Your task to perform on an android device: allow cookies in the chrome app Image 0: 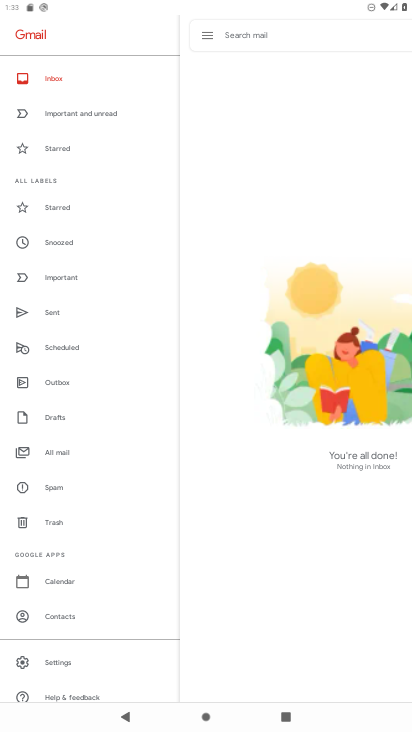
Step 0: press home button
Your task to perform on an android device: allow cookies in the chrome app Image 1: 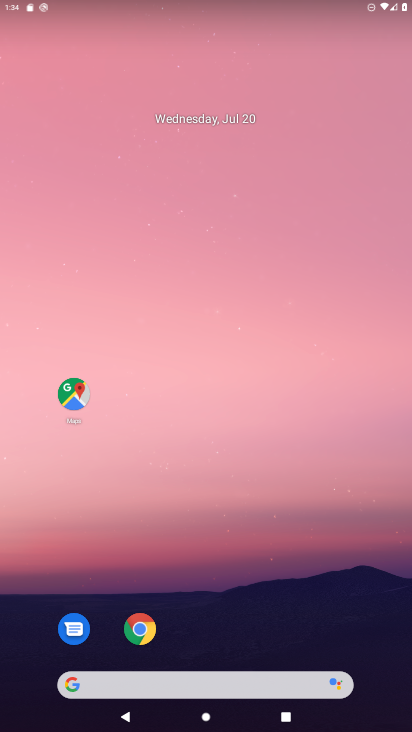
Step 1: click (146, 633)
Your task to perform on an android device: allow cookies in the chrome app Image 2: 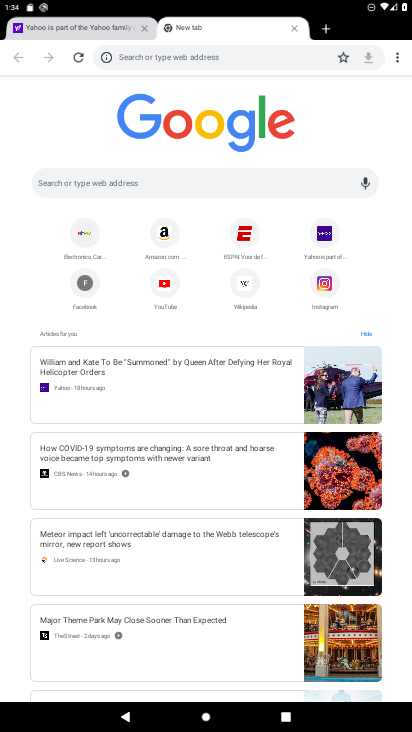
Step 2: click (401, 48)
Your task to perform on an android device: allow cookies in the chrome app Image 3: 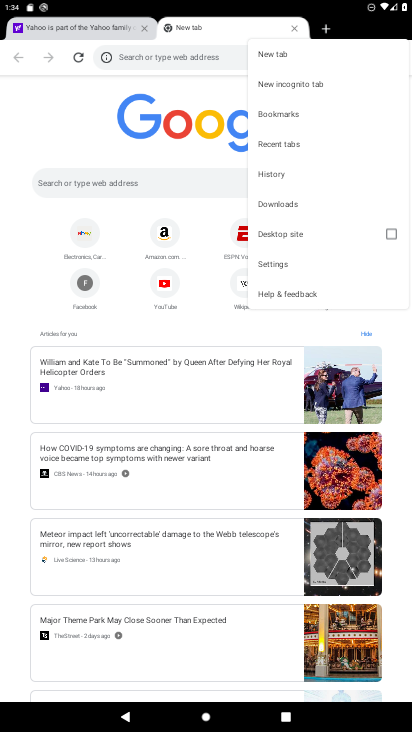
Step 3: click (283, 263)
Your task to perform on an android device: allow cookies in the chrome app Image 4: 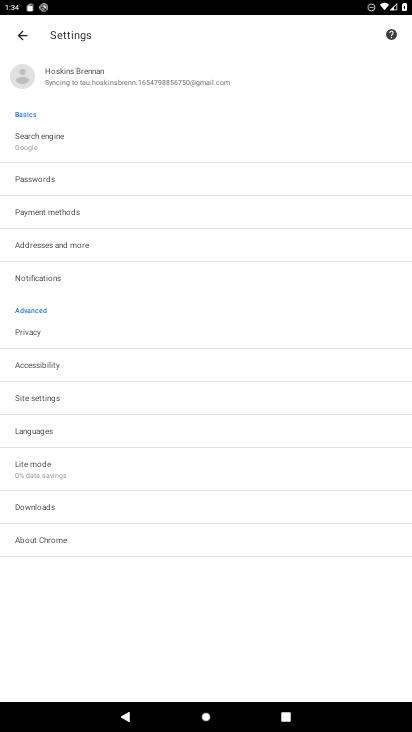
Step 4: click (48, 395)
Your task to perform on an android device: allow cookies in the chrome app Image 5: 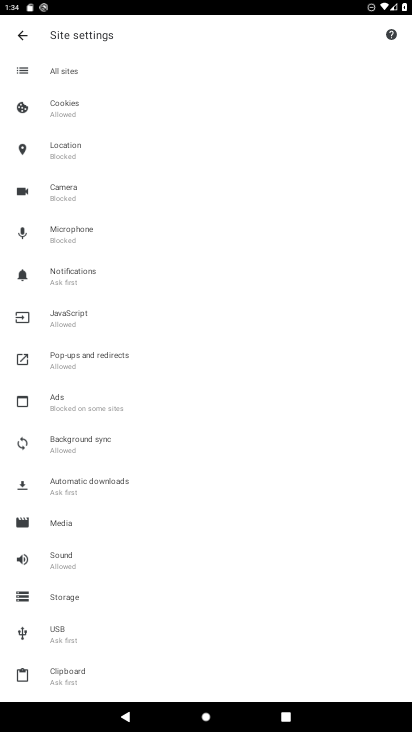
Step 5: click (70, 351)
Your task to perform on an android device: allow cookies in the chrome app Image 6: 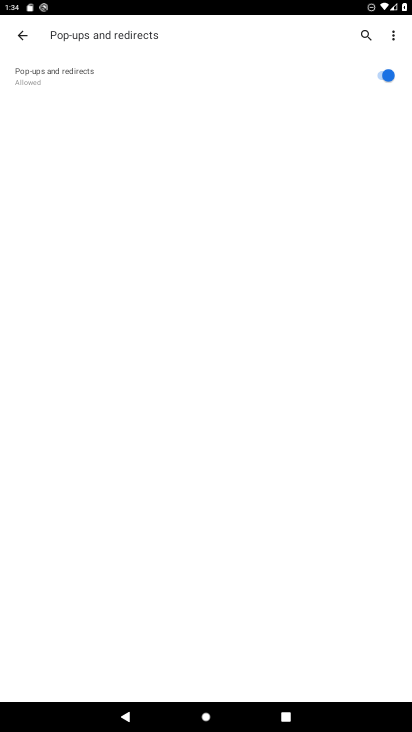
Step 6: click (18, 30)
Your task to perform on an android device: allow cookies in the chrome app Image 7: 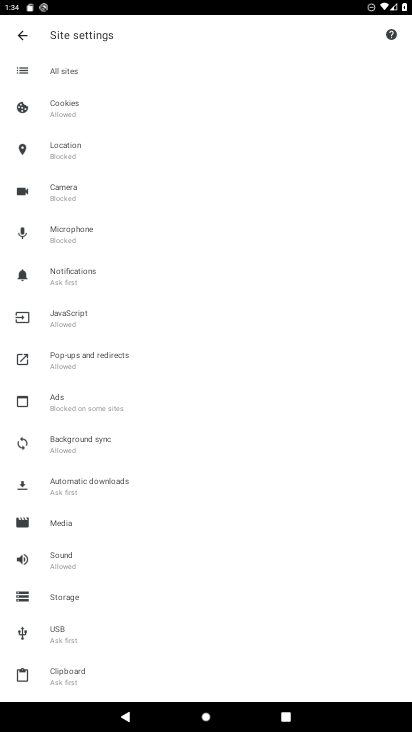
Step 7: click (74, 110)
Your task to perform on an android device: allow cookies in the chrome app Image 8: 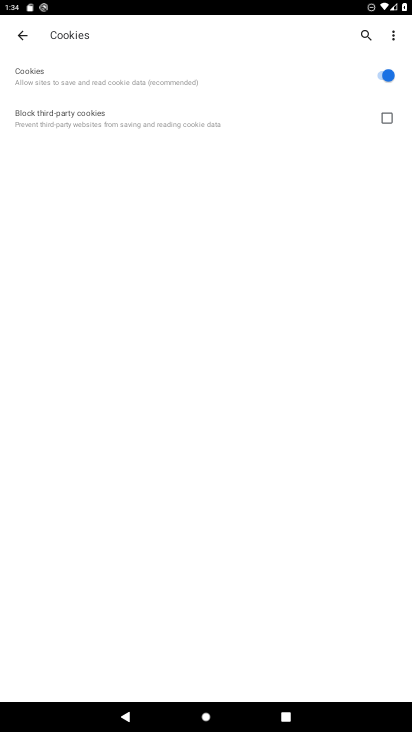
Step 8: task complete